Your task to perform on an android device: turn off location Image 0: 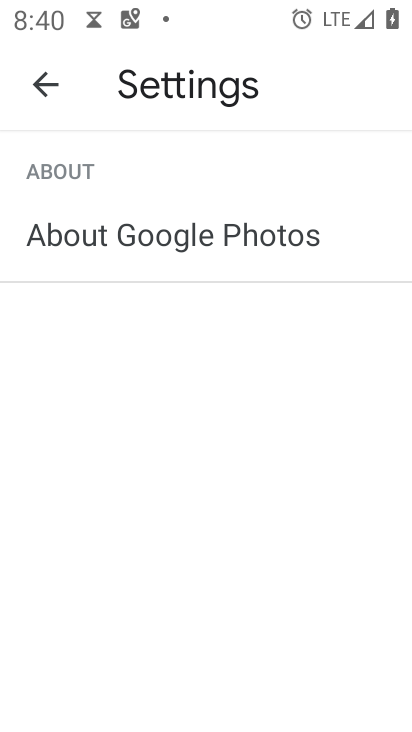
Step 0: press home button
Your task to perform on an android device: turn off location Image 1: 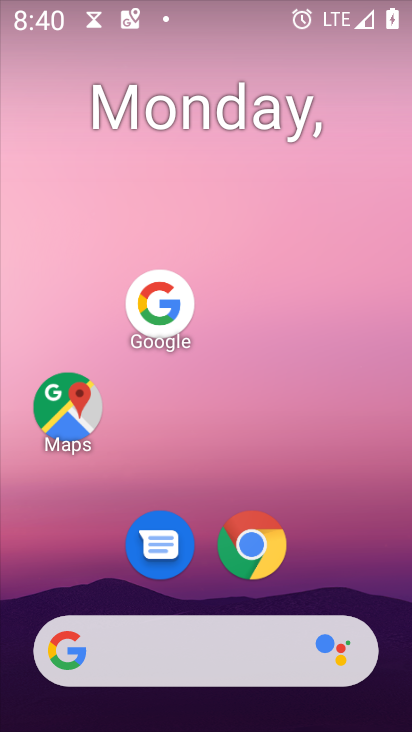
Step 1: drag from (206, 656) to (360, 104)
Your task to perform on an android device: turn off location Image 2: 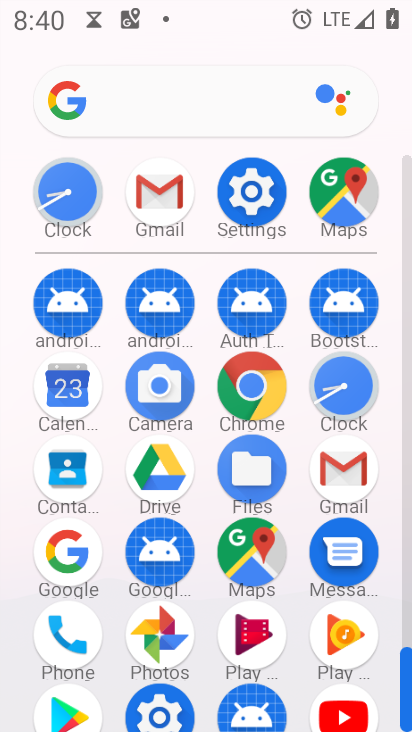
Step 2: click (251, 218)
Your task to perform on an android device: turn off location Image 3: 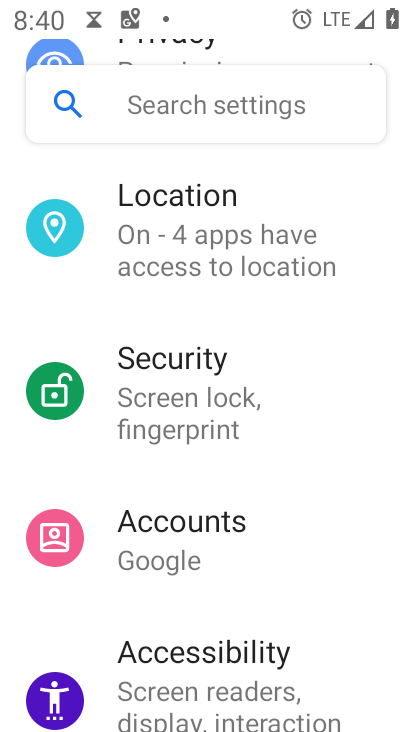
Step 3: click (205, 227)
Your task to perform on an android device: turn off location Image 4: 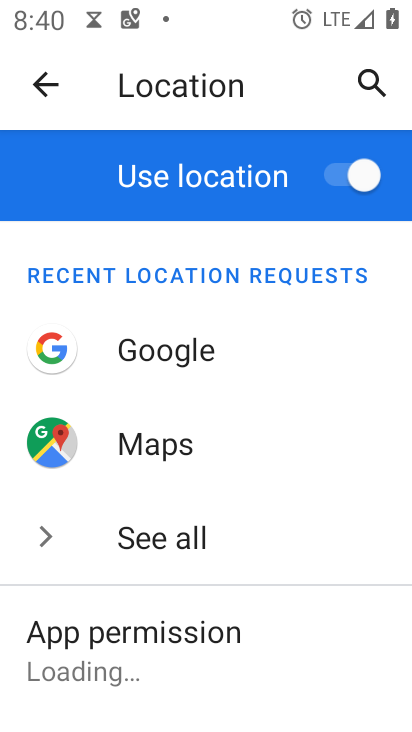
Step 4: click (342, 175)
Your task to perform on an android device: turn off location Image 5: 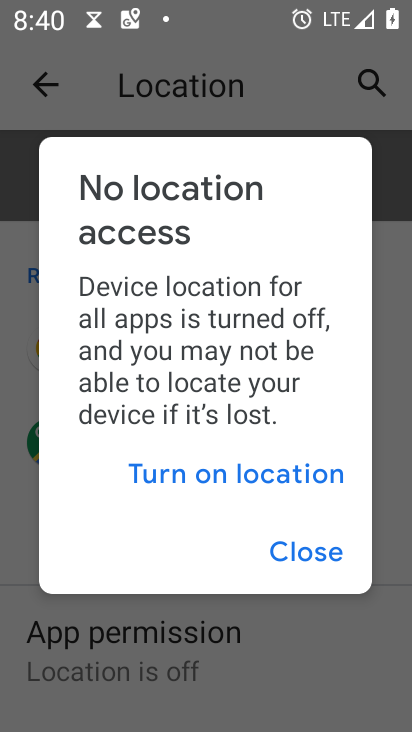
Step 5: click (322, 557)
Your task to perform on an android device: turn off location Image 6: 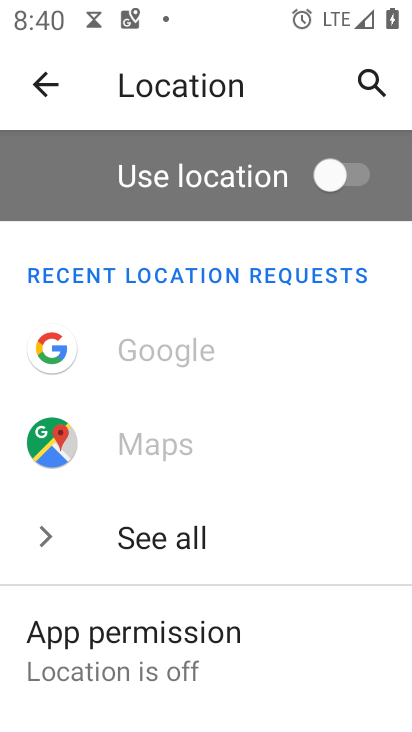
Step 6: task complete